Your task to perform on an android device: Play the new Justin Bieber video on YouTube Image 0: 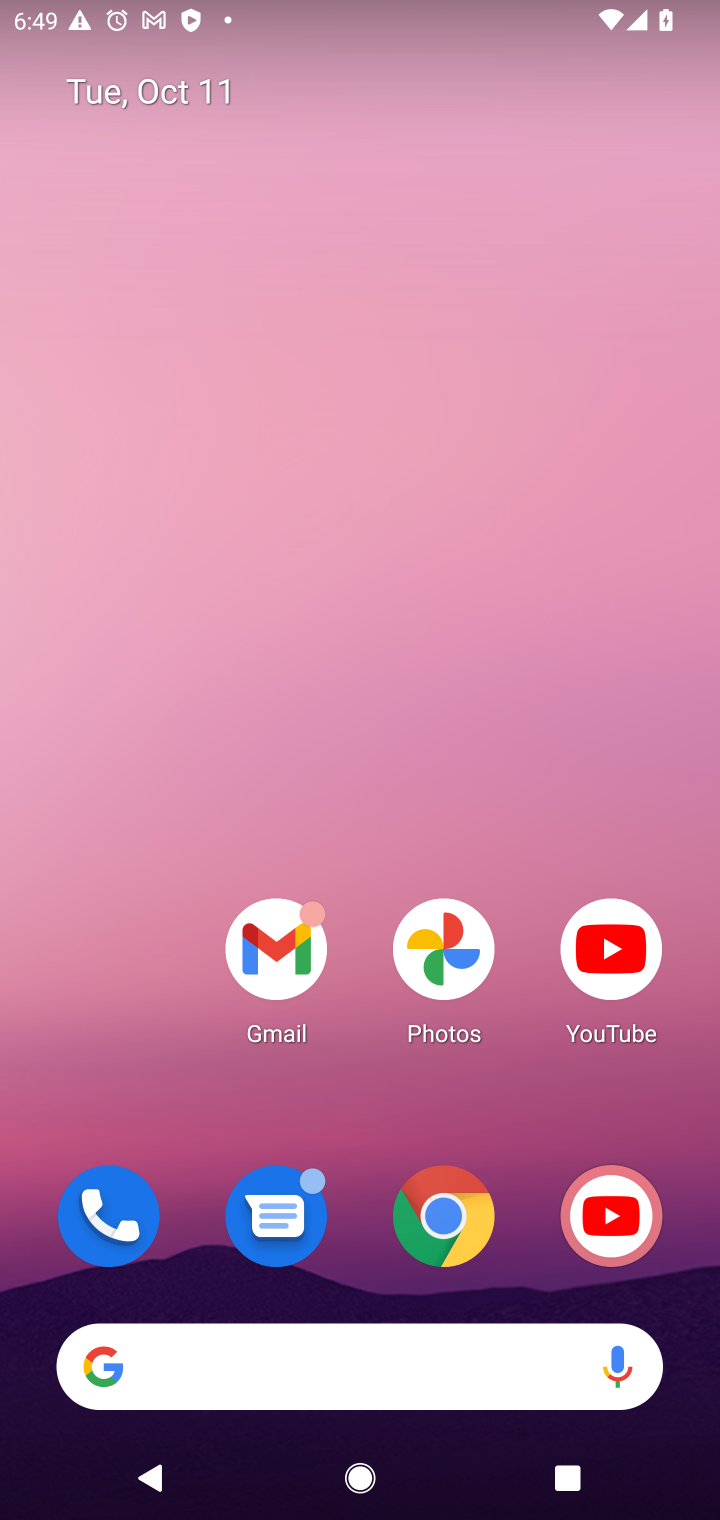
Step 0: click (589, 1014)
Your task to perform on an android device: Play the new Justin Bieber video on YouTube Image 1: 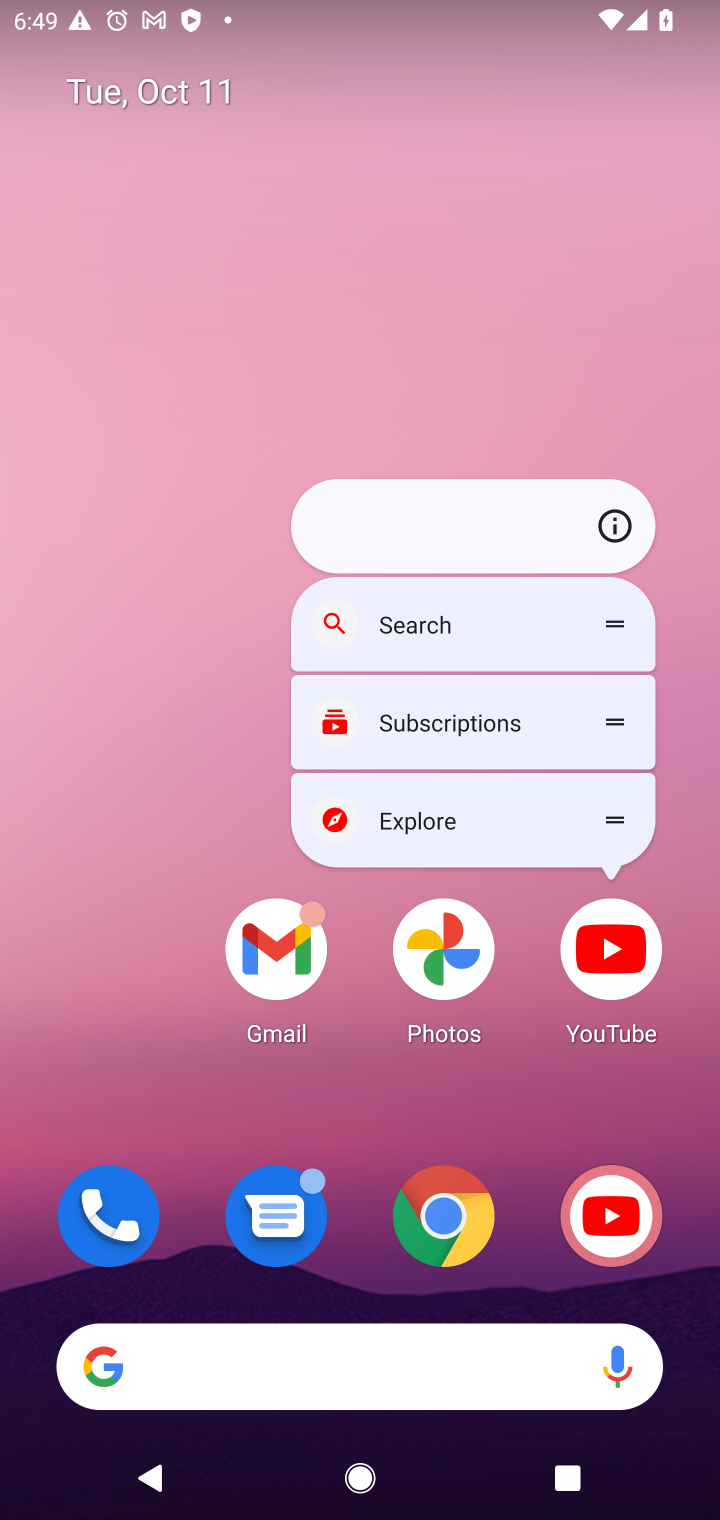
Step 1: click (597, 955)
Your task to perform on an android device: Play the new Justin Bieber video on YouTube Image 2: 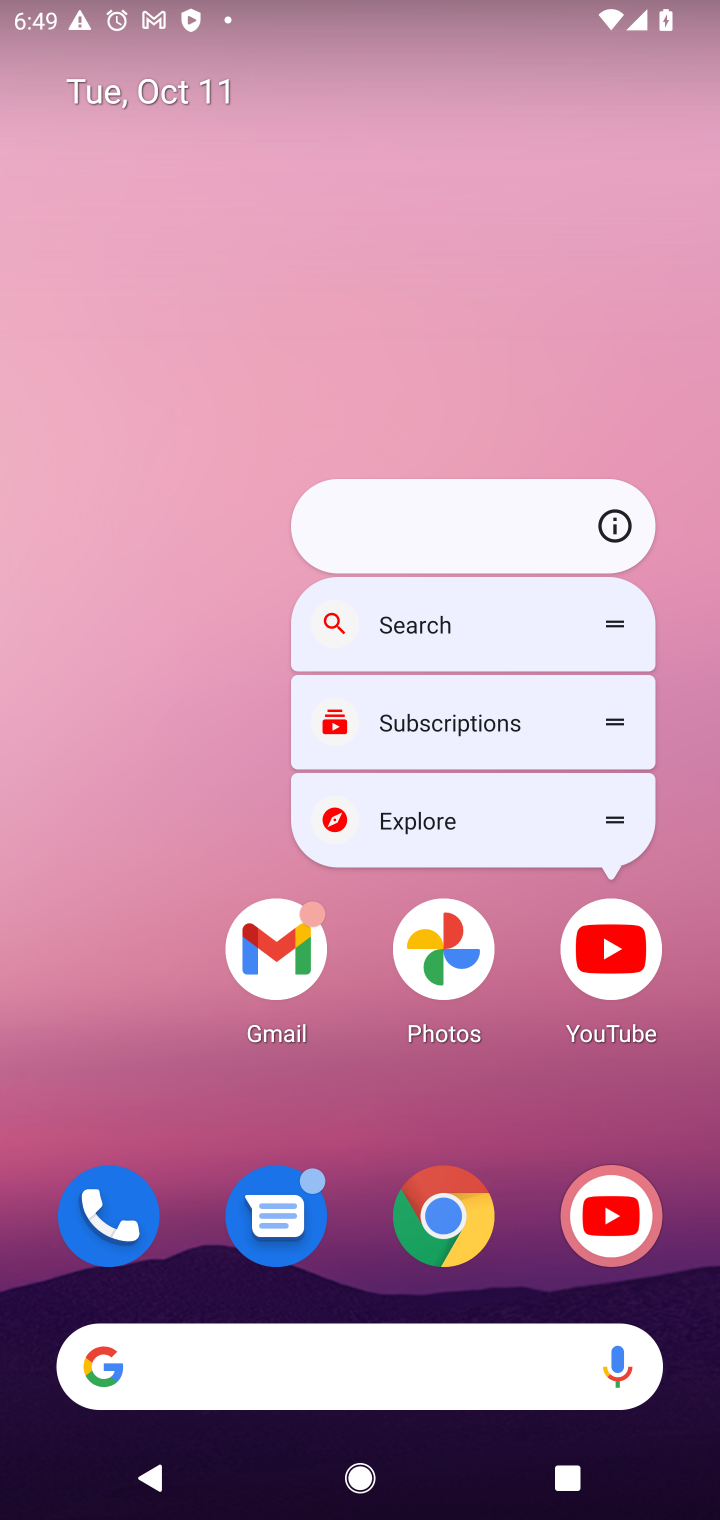
Step 2: click (597, 947)
Your task to perform on an android device: Play the new Justin Bieber video on YouTube Image 3: 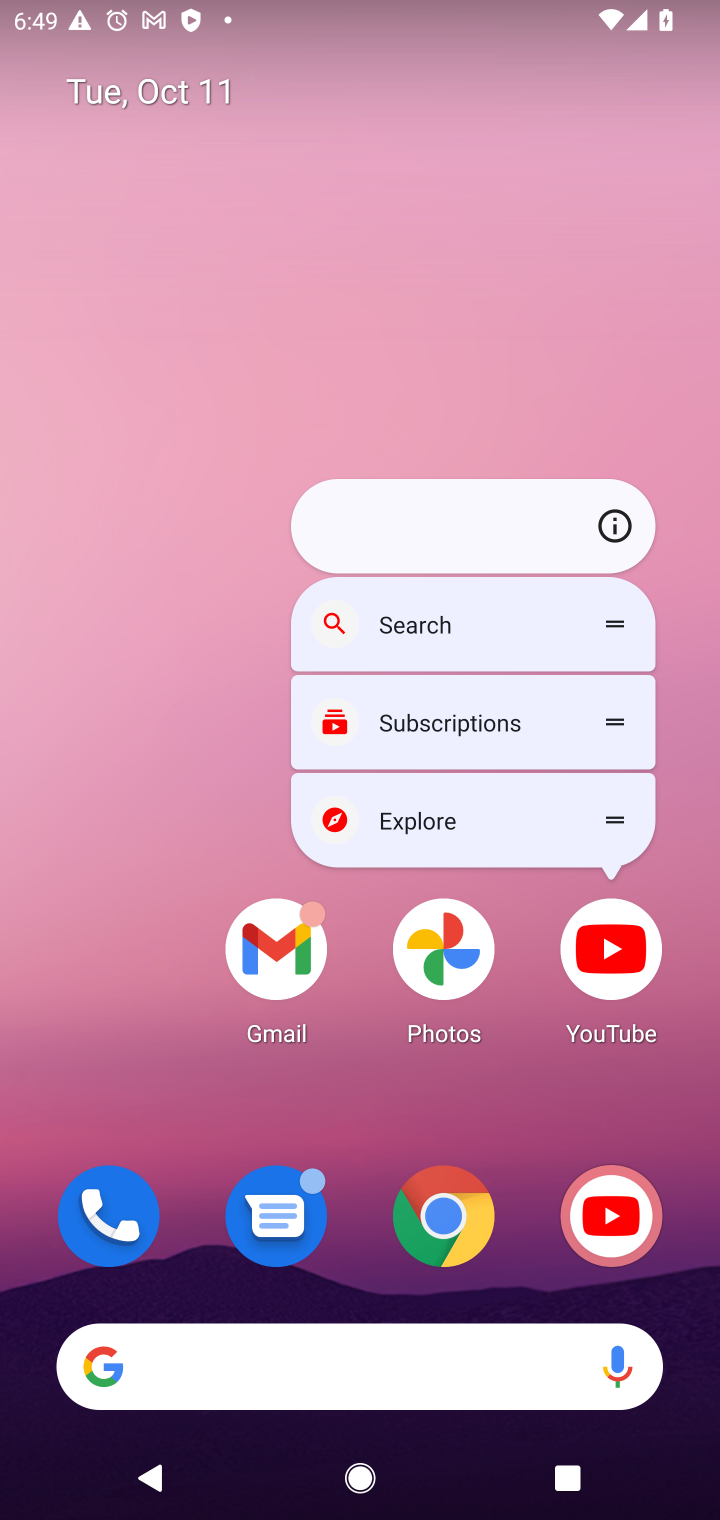
Step 3: click (605, 999)
Your task to perform on an android device: Play the new Justin Bieber video on YouTube Image 4: 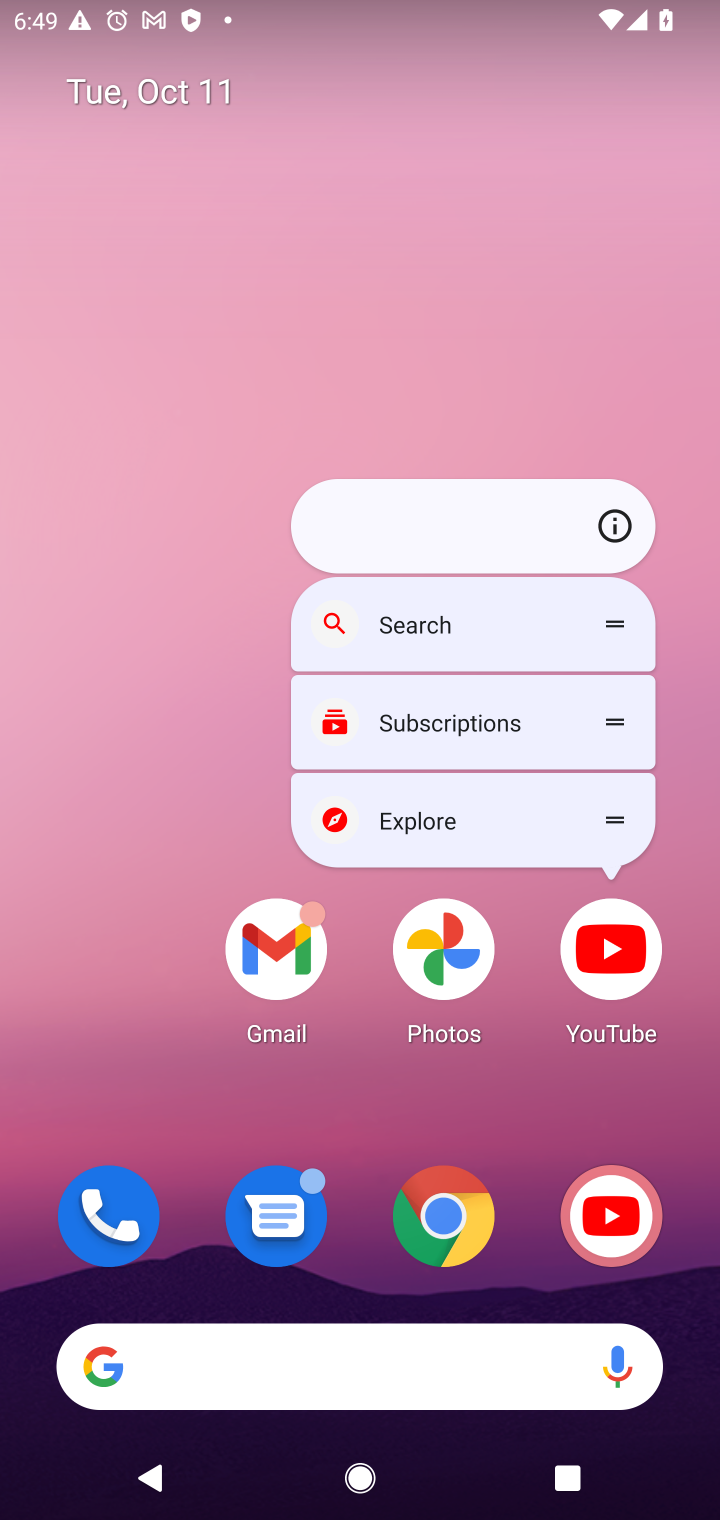
Step 4: click (595, 984)
Your task to perform on an android device: Play the new Justin Bieber video on YouTube Image 5: 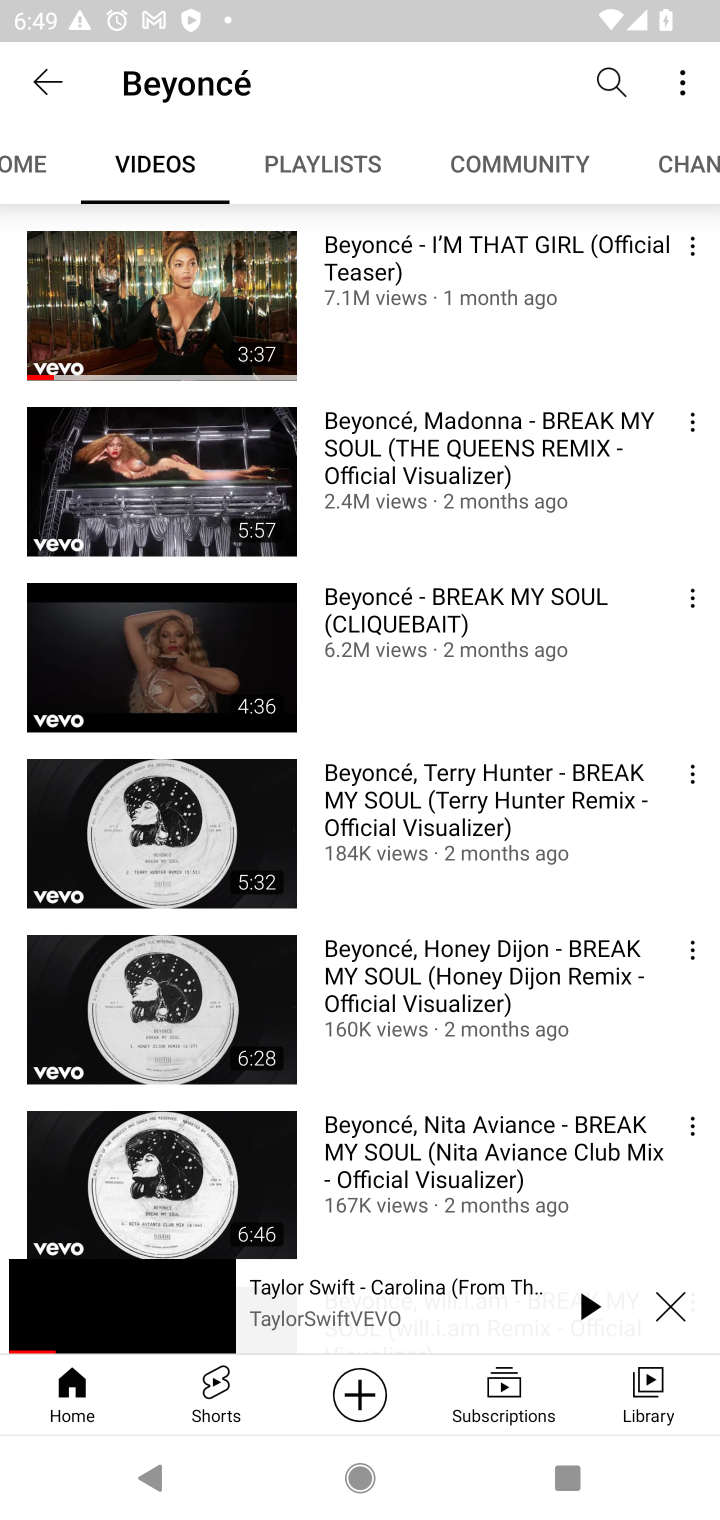
Step 5: click (608, 96)
Your task to perform on an android device: Play the new Justin Bieber video on YouTube Image 6: 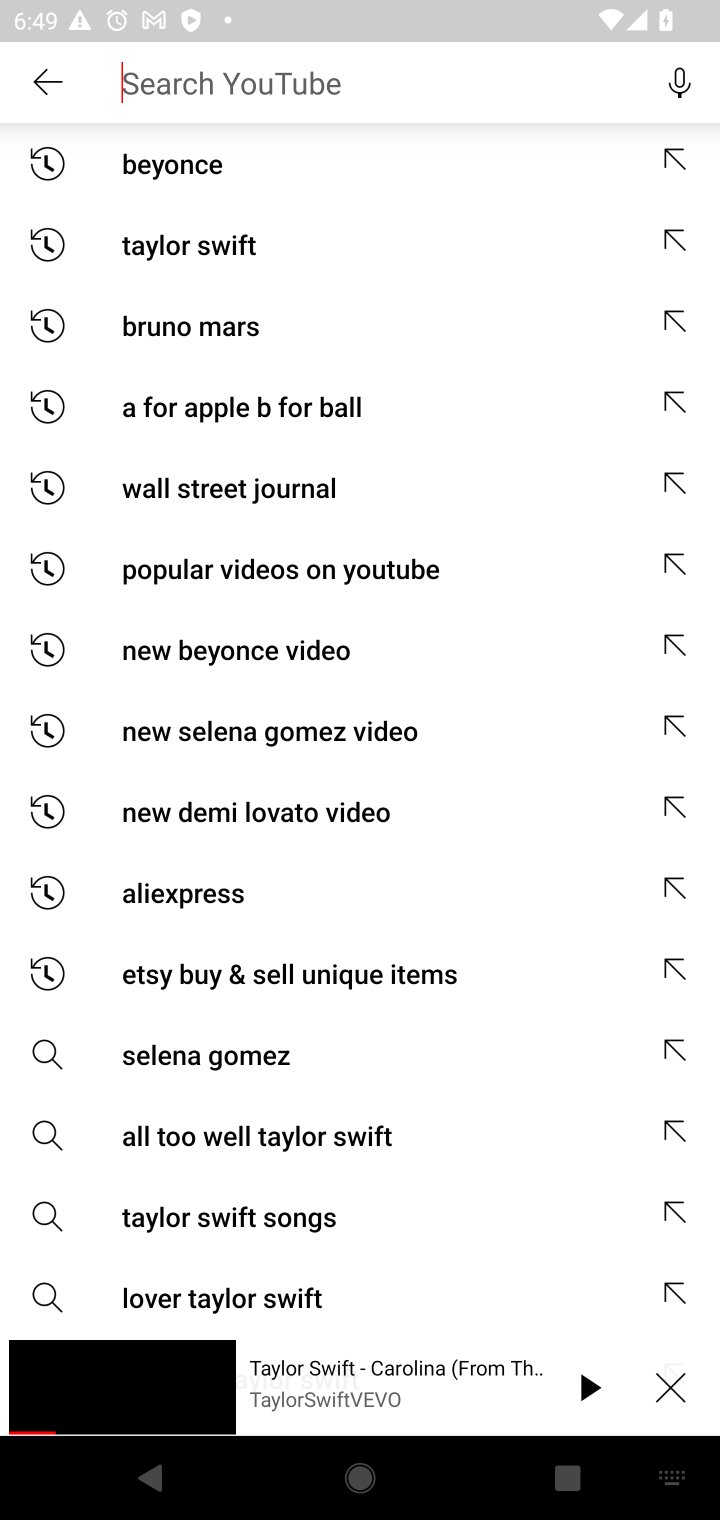
Step 6: type "ustin Bieber"
Your task to perform on an android device: Play the new Justin Bieber video on YouTube Image 7: 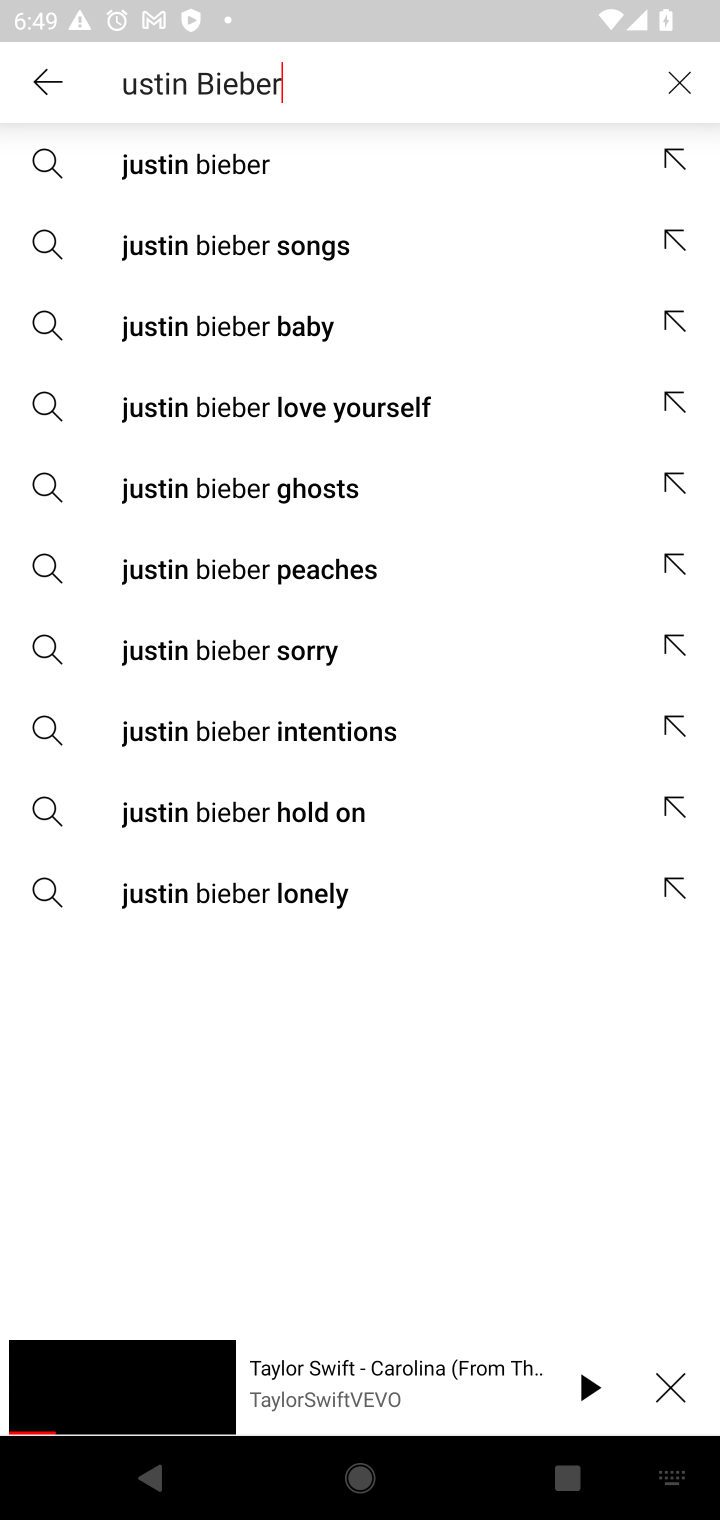
Step 7: press enter
Your task to perform on an android device: Play the new Justin Bieber video on YouTube Image 8: 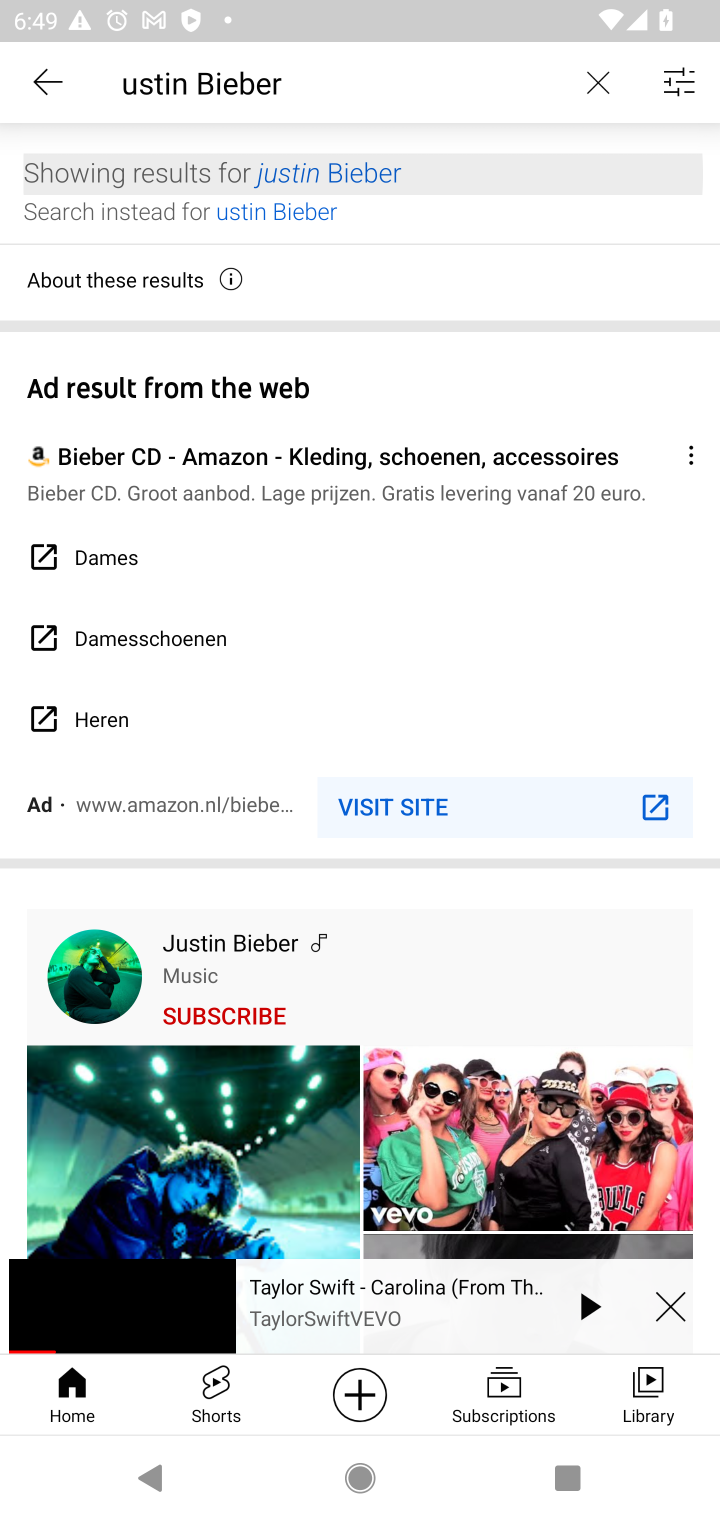
Step 8: click (358, 179)
Your task to perform on an android device: Play the new Justin Bieber video on YouTube Image 9: 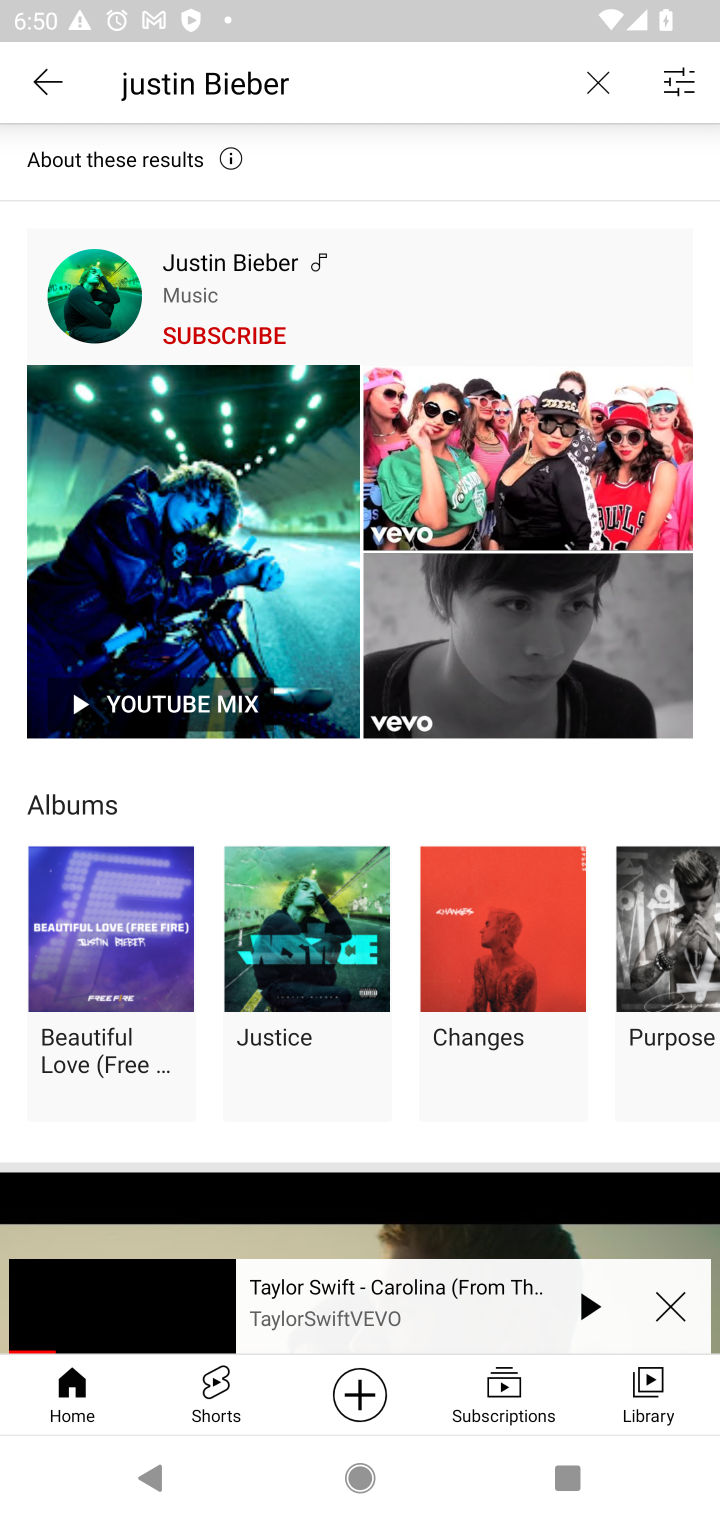
Step 9: click (113, 269)
Your task to perform on an android device: Play the new Justin Bieber video on YouTube Image 10: 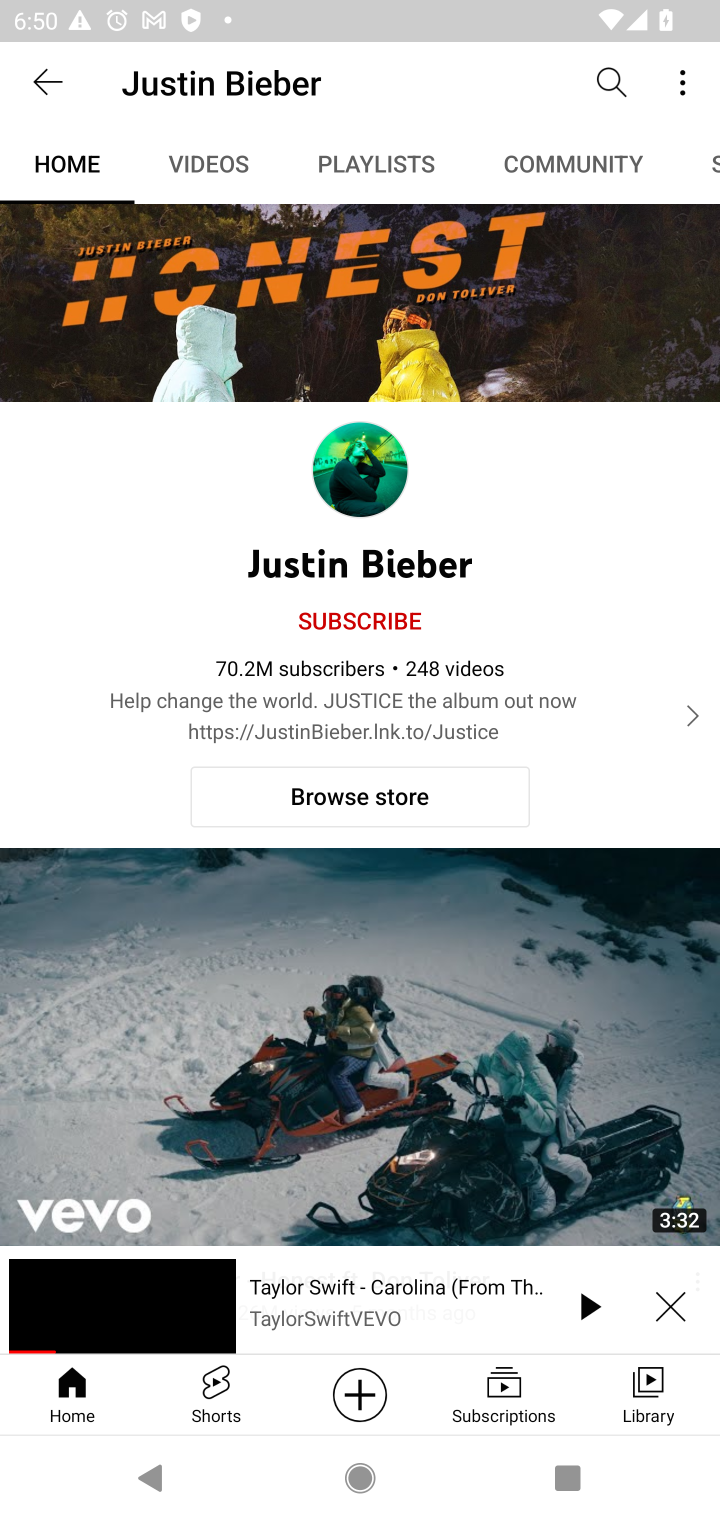
Step 10: click (198, 161)
Your task to perform on an android device: Play the new Justin Bieber video on YouTube Image 11: 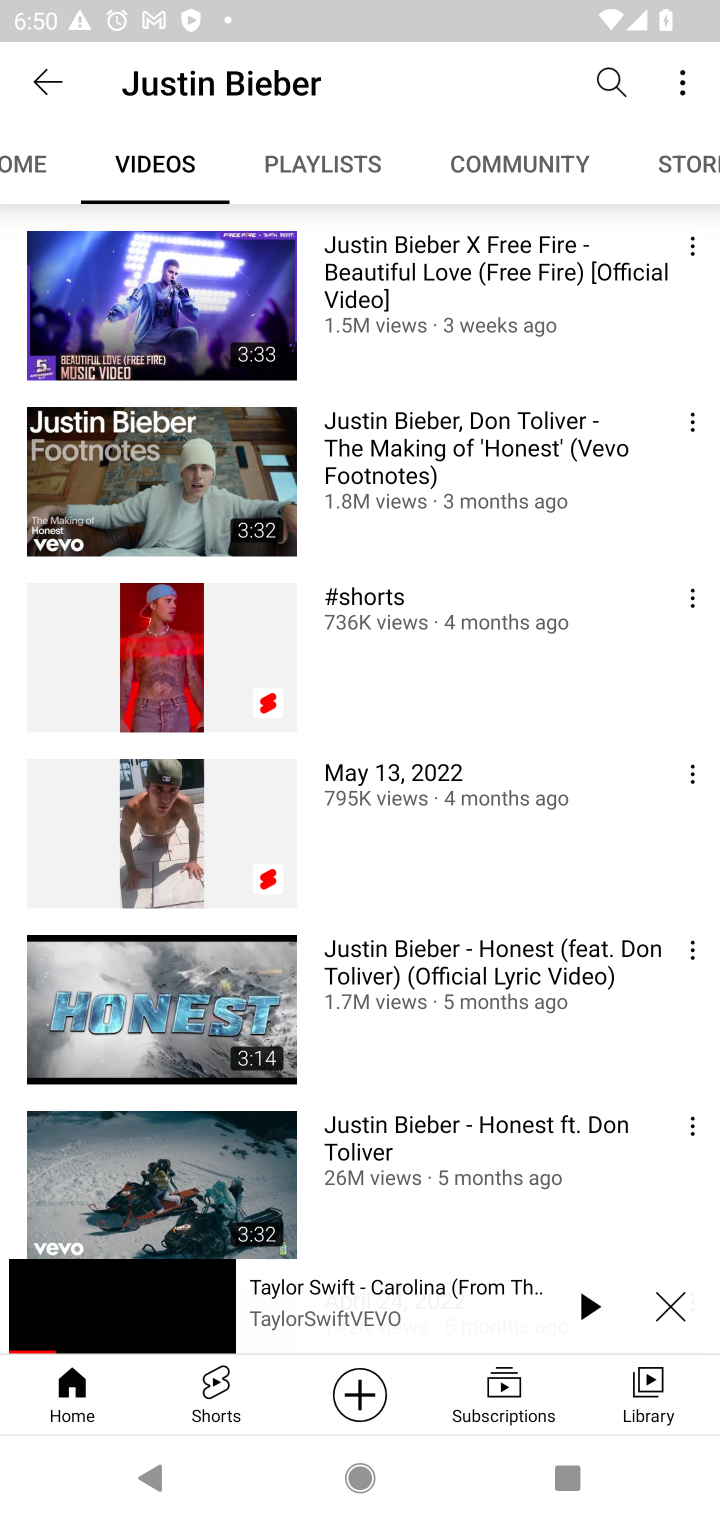
Step 11: click (172, 295)
Your task to perform on an android device: Play the new Justin Bieber video on YouTube Image 12: 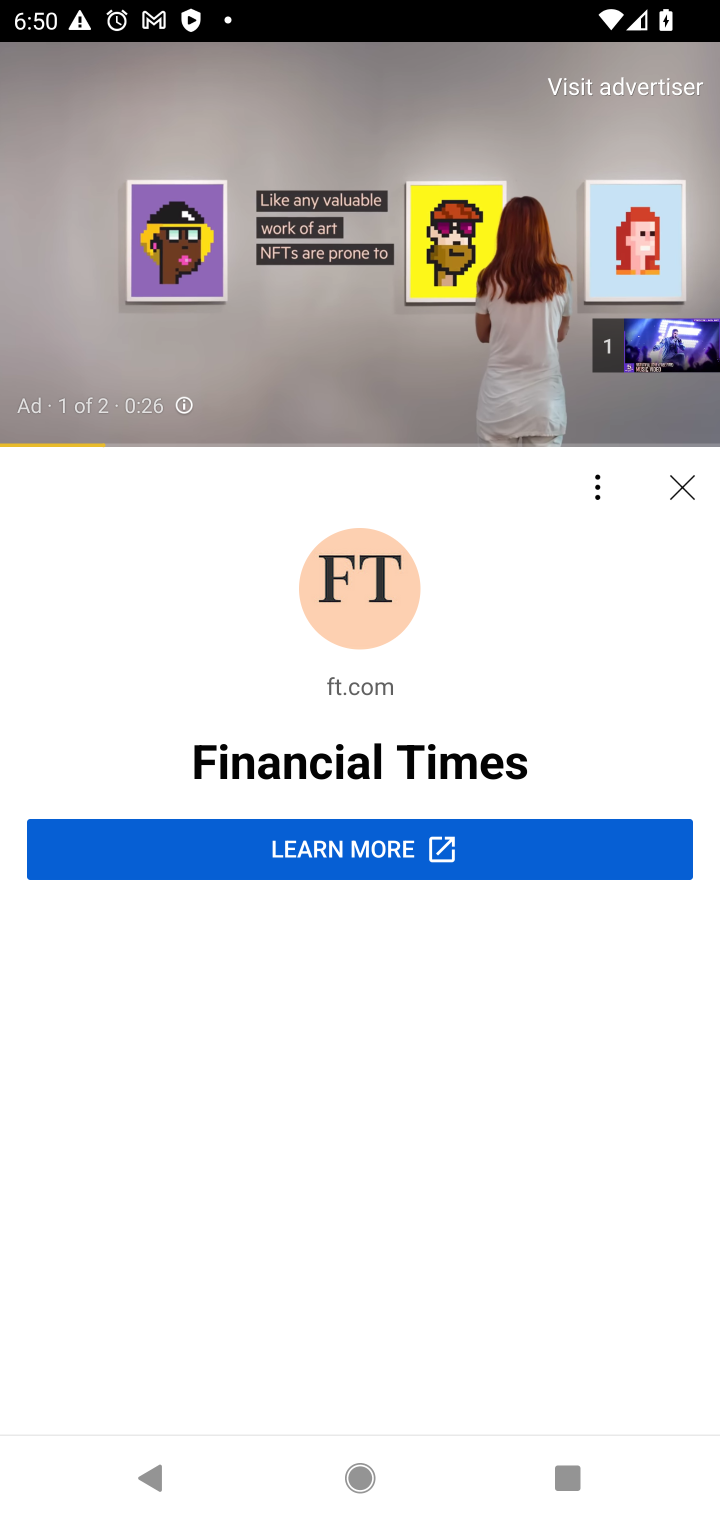
Step 12: task complete